Your task to perform on an android device: change keyboard looks Image 0: 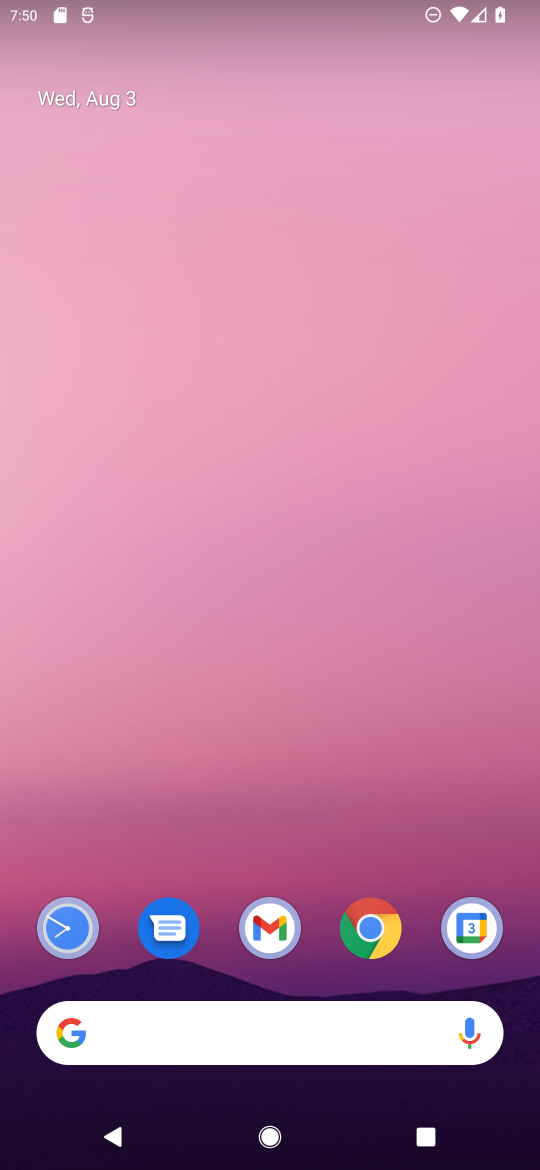
Step 0: drag from (317, 868) to (254, 56)
Your task to perform on an android device: change keyboard looks Image 1: 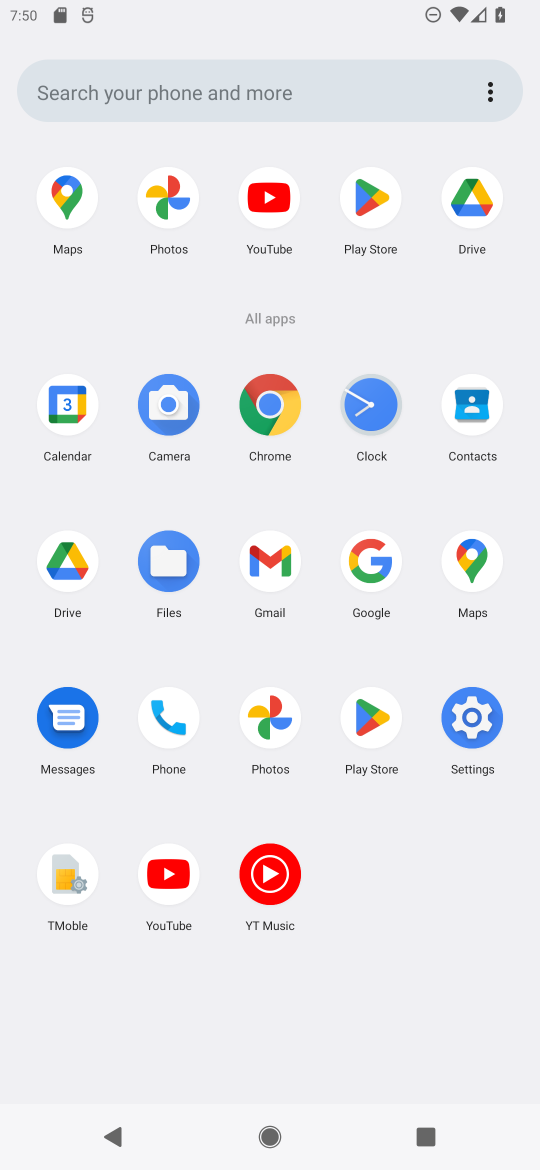
Step 1: click (478, 714)
Your task to perform on an android device: change keyboard looks Image 2: 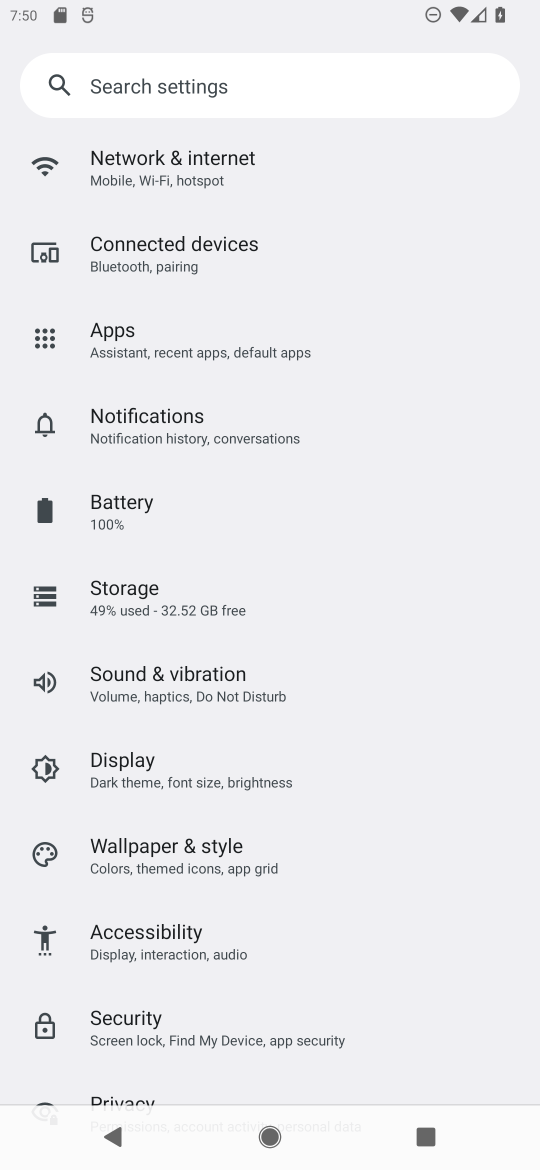
Step 2: drag from (385, 1076) to (346, 112)
Your task to perform on an android device: change keyboard looks Image 3: 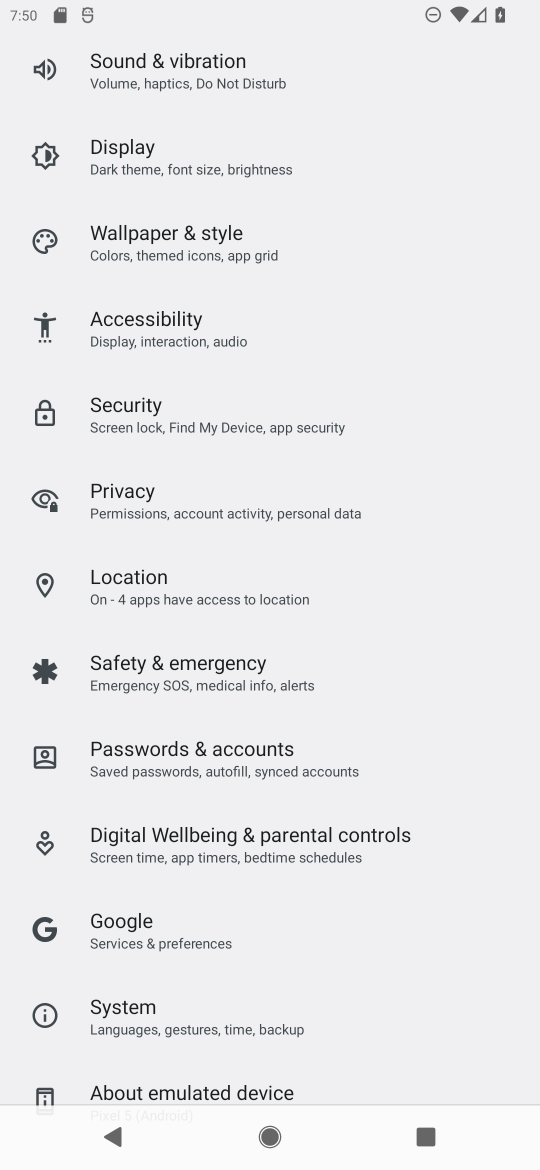
Step 3: click (306, 1038)
Your task to perform on an android device: change keyboard looks Image 4: 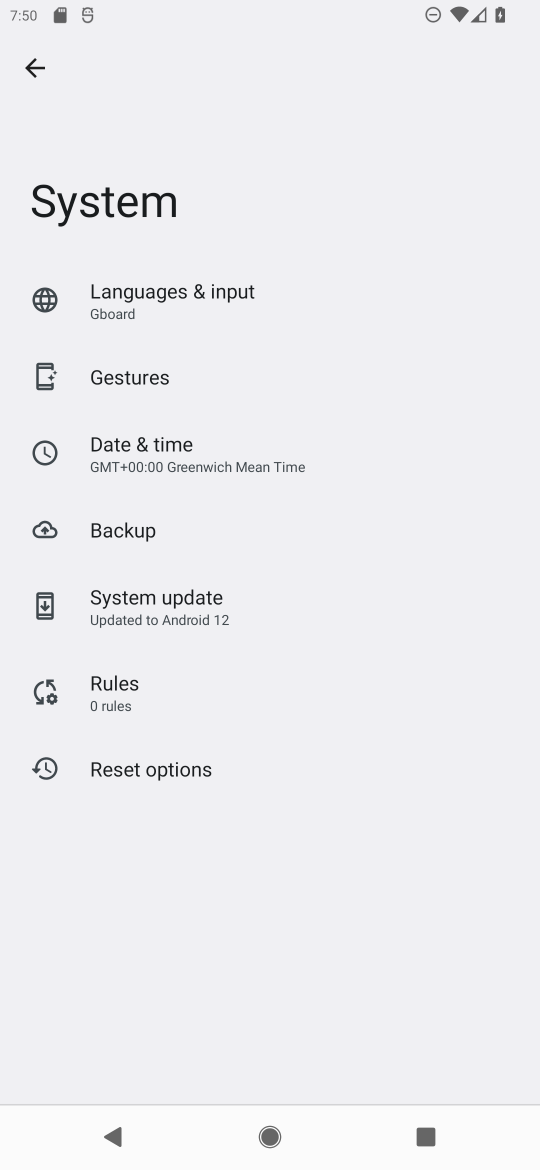
Step 4: click (165, 318)
Your task to perform on an android device: change keyboard looks Image 5: 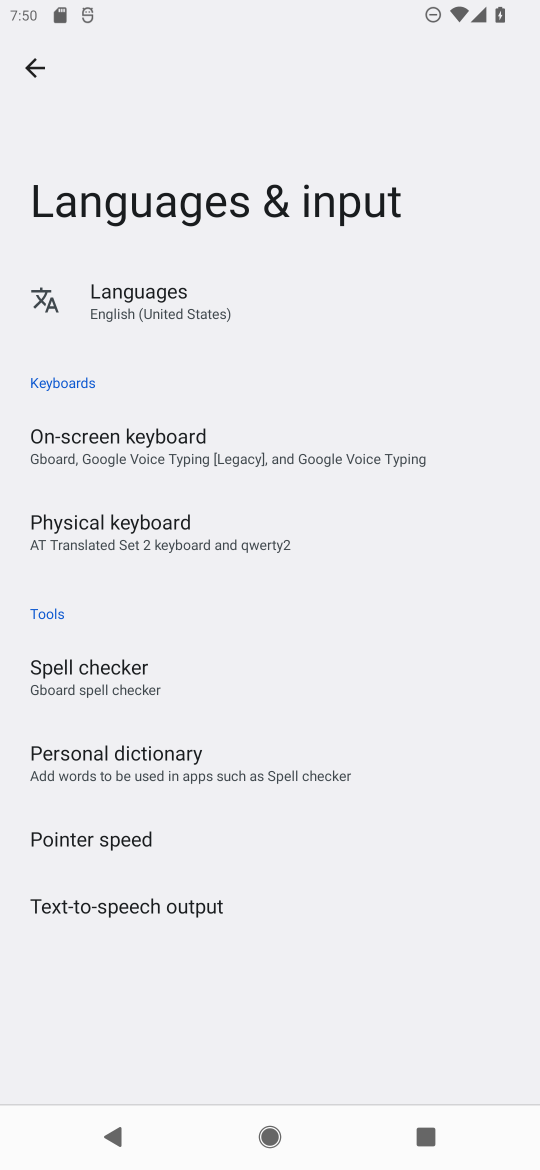
Step 5: click (195, 459)
Your task to perform on an android device: change keyboard looks Image 6: 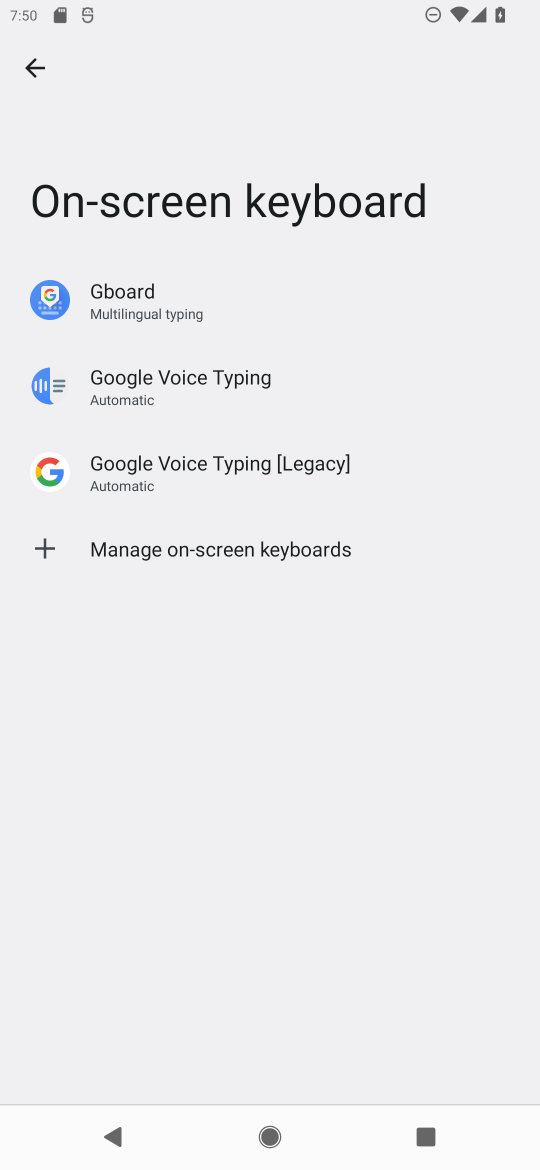
Step 6: click (176, 312)
Your task to perform on an android device: change keyboard looks Image 7: 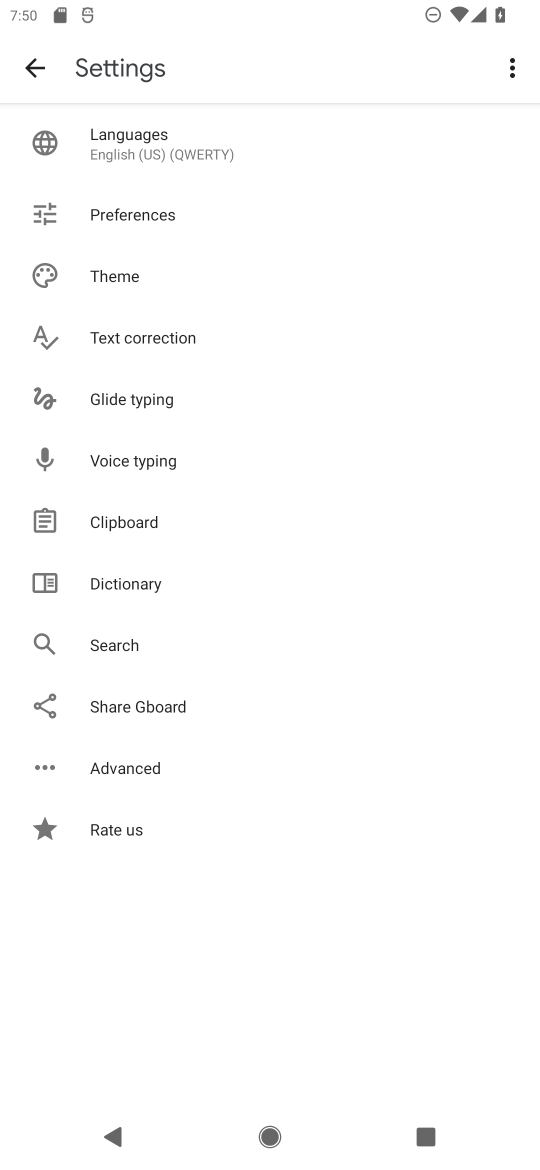
Step 7: click (162, 288)
Your task to perform on an android device: change keyboard looks Image 8: 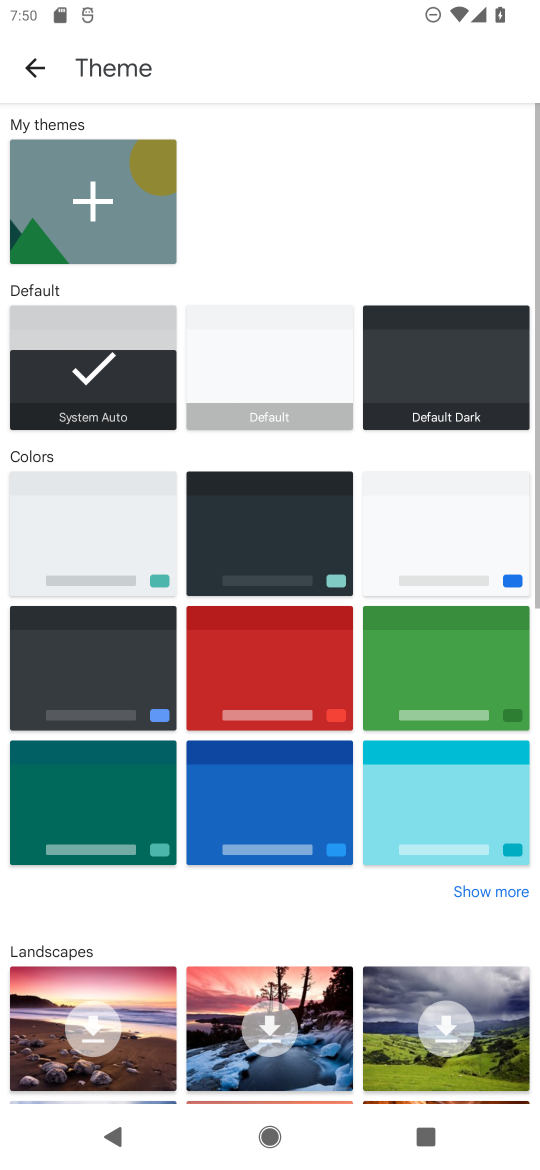
Step 8: click (326, 387)
Your task to perform on an android device: change keyboard looks Image 9: 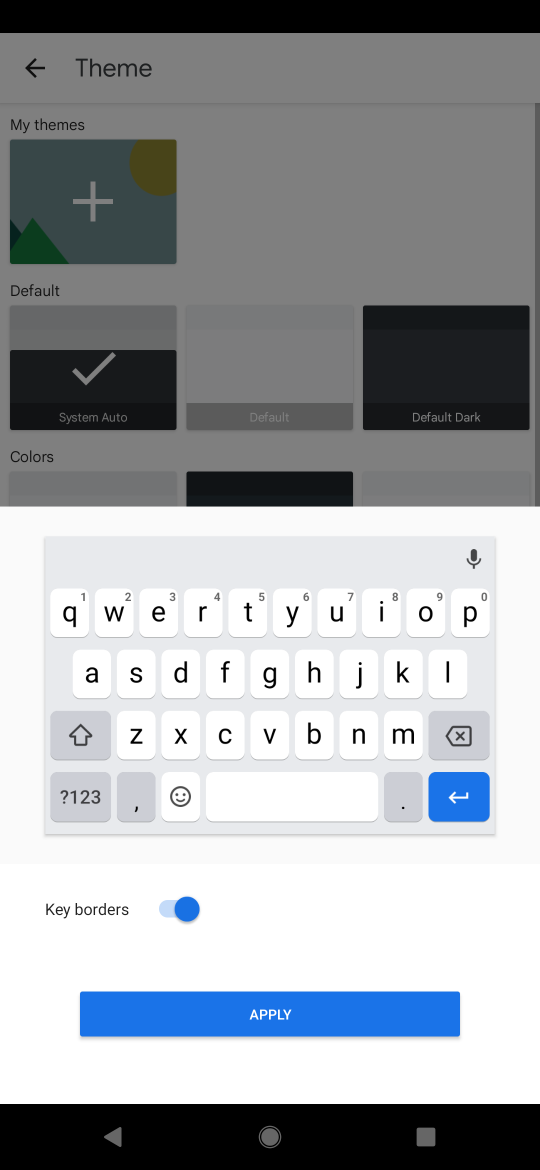
Step 9: click (268, 1018)
Your task to perform on an android device: change keyboard looks Image 10: 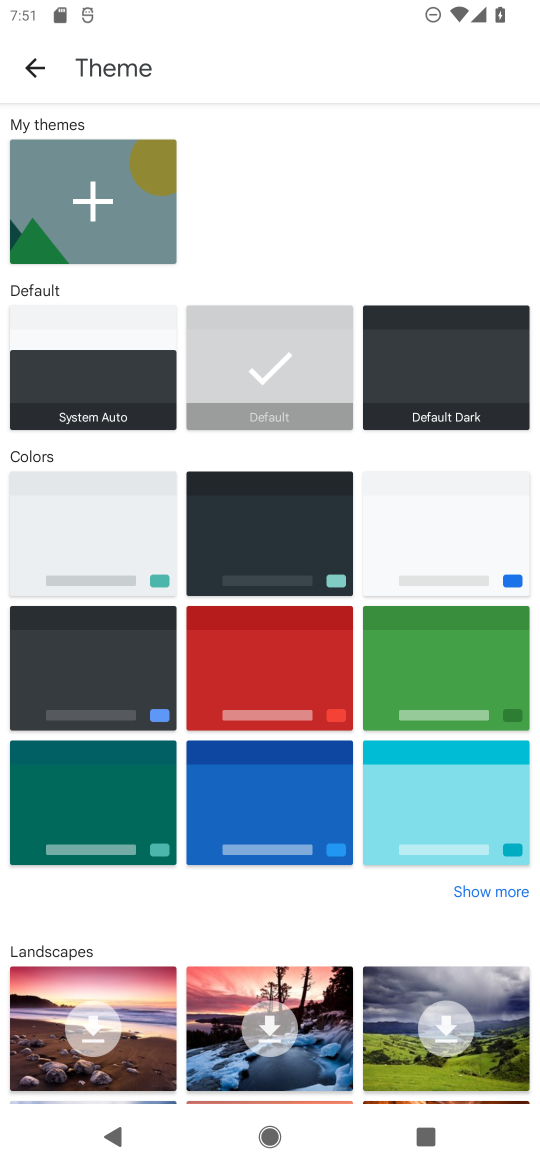
Step 10: task complete